Your task to perform on an android device: change timer sound Image 0: 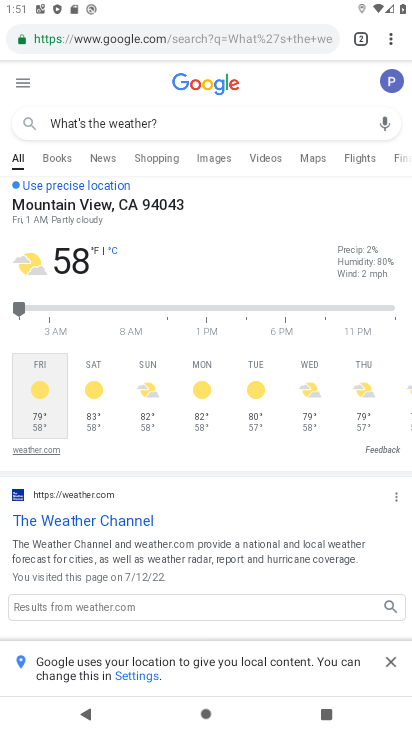
Step 0: press home button
Your task to perform on an android device: change timer sound Image 1: 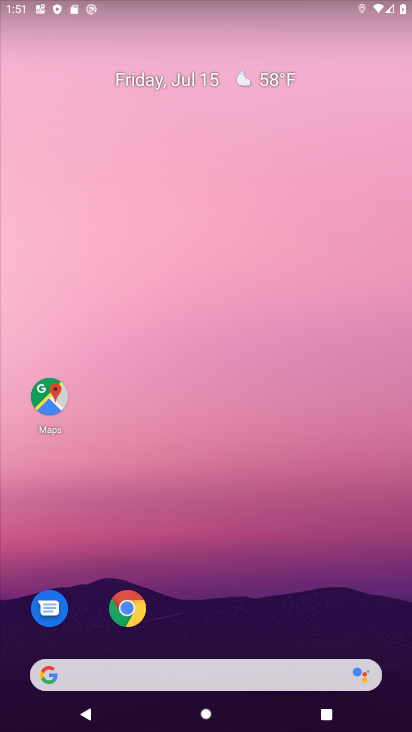
Step 1: drag from (241, 584) to (302, 110)
Your task to perform on an android device: change timer sound Image 2: 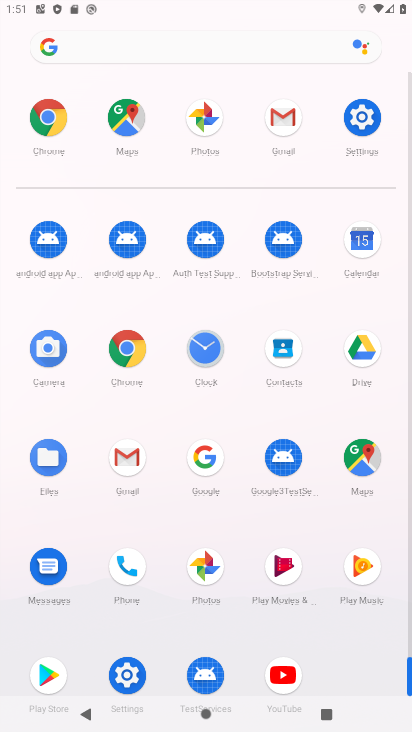
Step 2: click (209, 350)
Your task to perform on an android device: change timer sound Image 3: 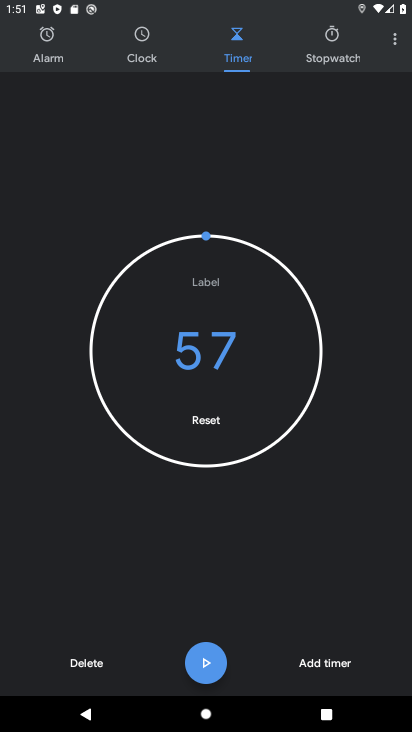
Step 3: click (392, 43)
Your task to perform on an android device: change timer sound Image 4: 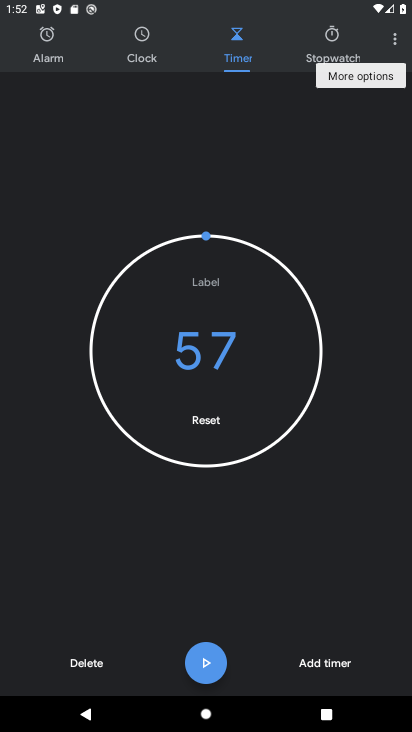
Step 4: click (392, 43)
Your task to perform on an android device: change timer sound Image 5: 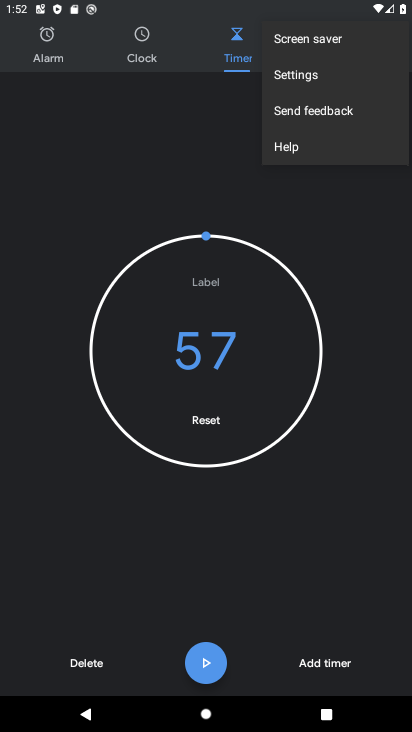
Step 5: click (305, 67)
Your task to perform on an android device: change timer sound Image 6: 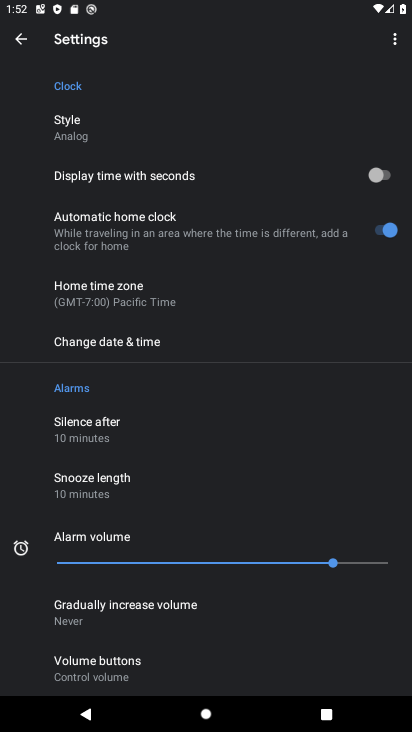
Step 6: drag from (174, 428) to (200, 118)
Your task to perform on an android device: change timer sound Image 7: 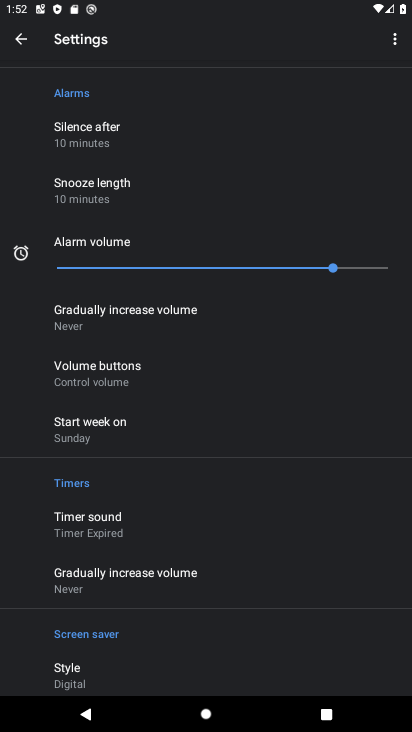
Step 7: click (103, 512)
Your task to perform on an android device: change timer sound Image 8: 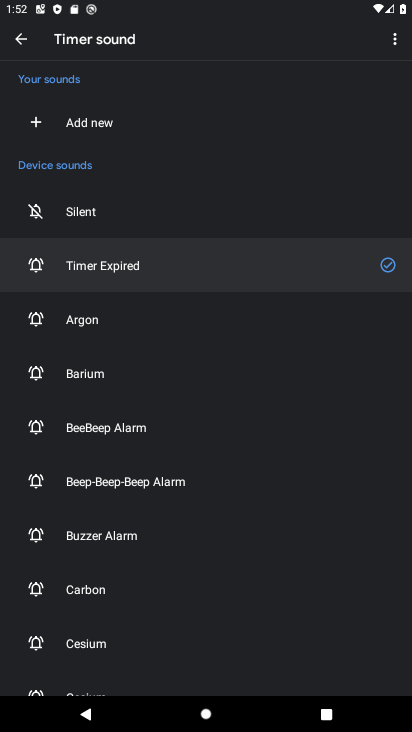
Step 8: task complete